Your task to perform on an android device: Go to display settings Image 0: 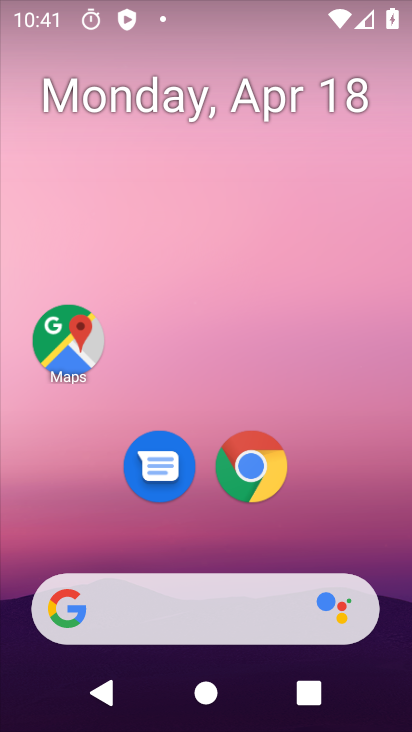
Step 0: click (191, 491)
Your task to perform on an android device: Go to display settings Image 1: 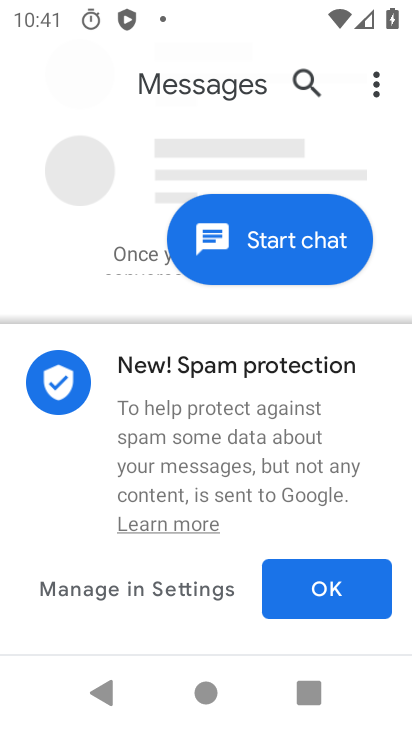
Step 1: press home button
Your task to perform on an android device: Go to display settings Image 2: 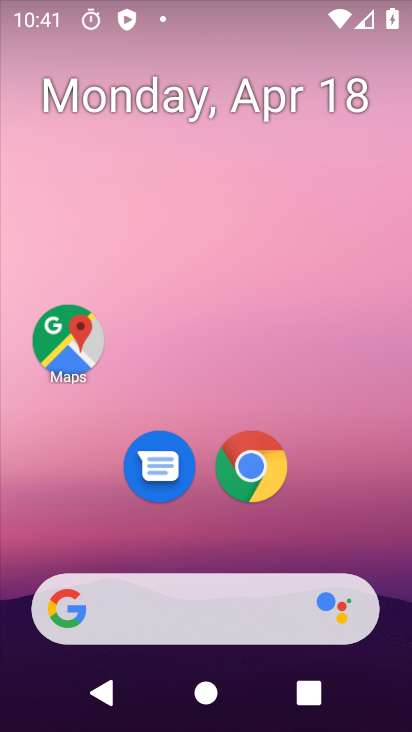
Step 2: drag from (251, 570) to (280, 82)
Your task to perform on an android device: Go to display settings Image 3: 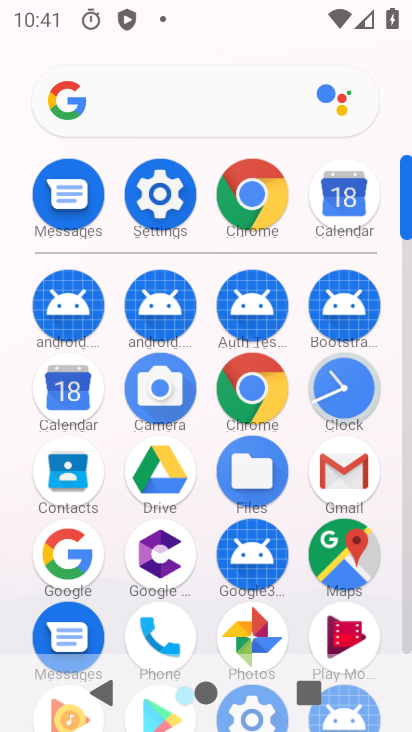
Step 3: drag from (297, 423) to (333, 84)
Your task to perform on an android device: Go to display settings Image 4: 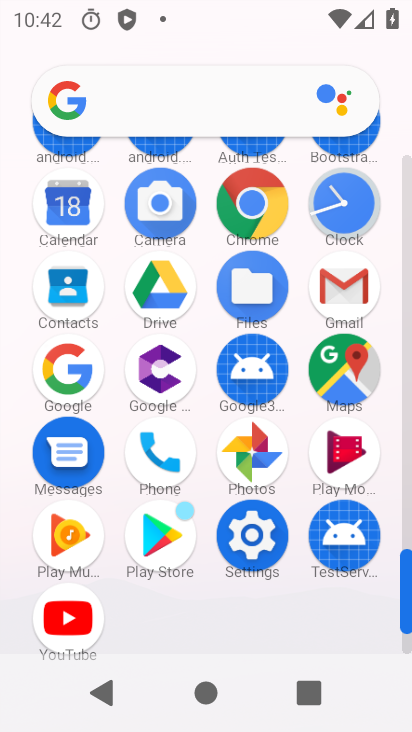
Step 4: click (248, 556)
Your task to perform on an android device: Go to display settings Image 5: 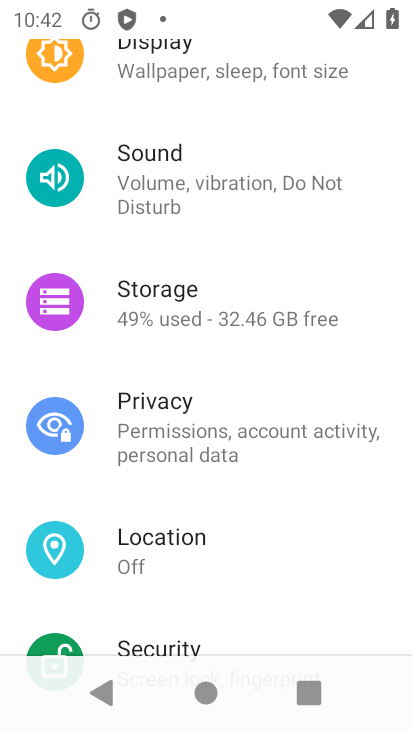
Step 5: drag from (187, 179) to (158, 574)
Your task to perform on an android device: Go to display settings Image 6: 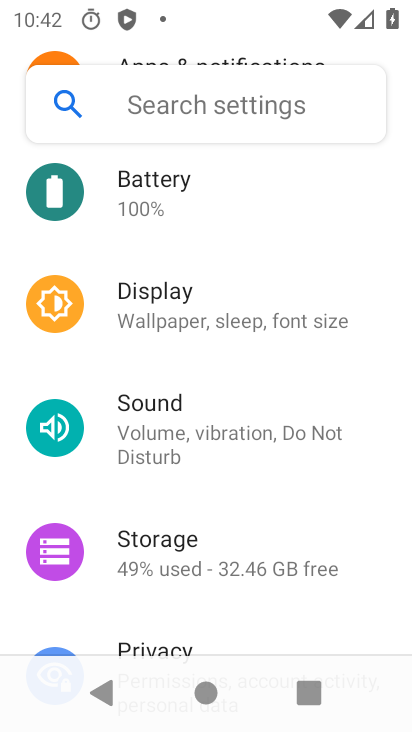
Step 6: click (221, 310)
Your task to perform on an android device: Go to display settings Image 7: 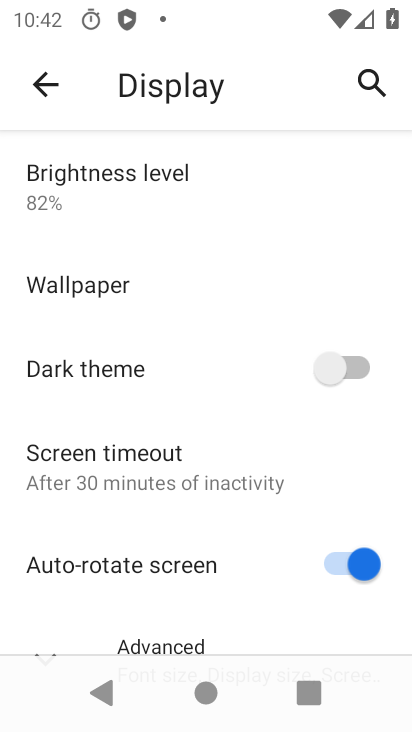
Step 7: task complete